Your task to perform on an android device: Show the shopping cart on costco. Add "panasonic triple a" to the cart on costco, then select checkout. Image 0: 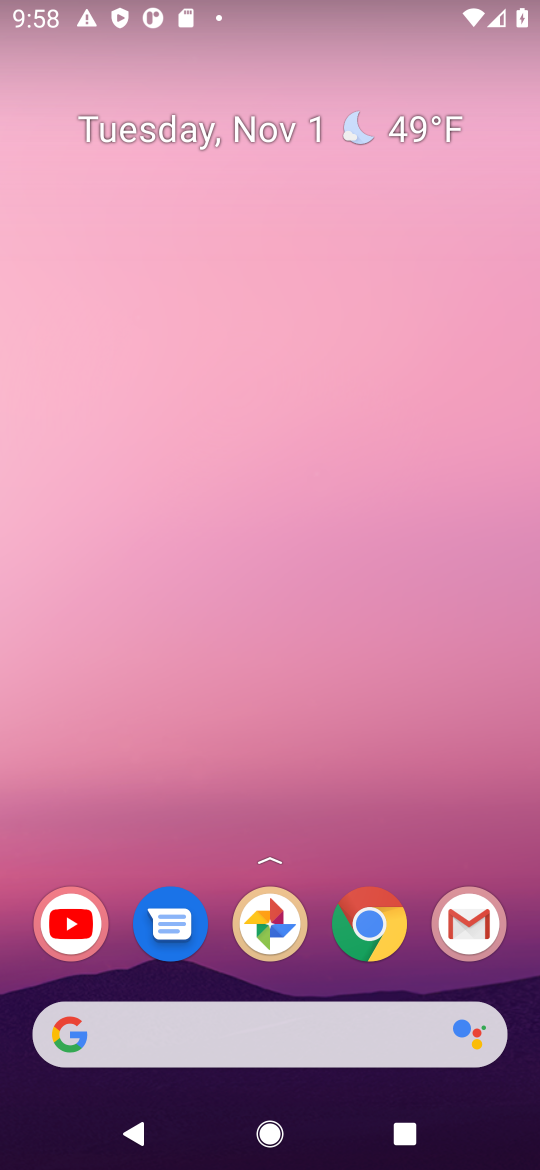
Step 0: click (398, 923)
Your task to perform on an android device: Show the shopping cart on costco. Add "panasonic triple a" to the cart on costco, then select checkout. Image 1: 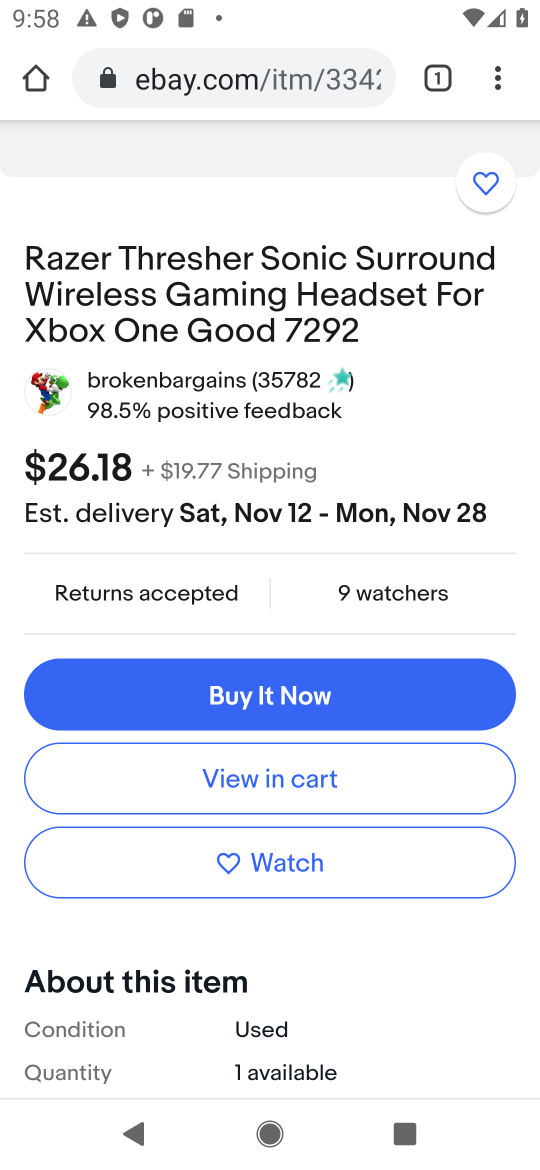
Step 1: click (178, 85)
Your task to perform on an android device: Show the shopping cart on costco. Add "panasonic triple a" to the cart on costco, then select checkout. Image 2: 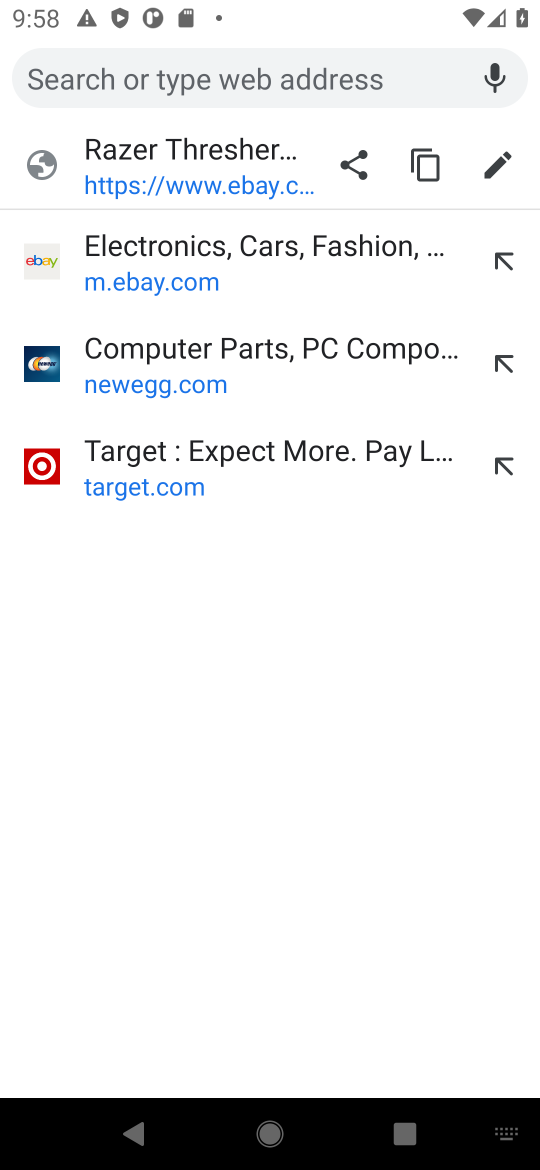
Step 2: type "costco"
Your task to perform on an android device: Show the shopping cart on costco. Add "panasonic triple a" to the cart on costco, then select checkout. Image 3: 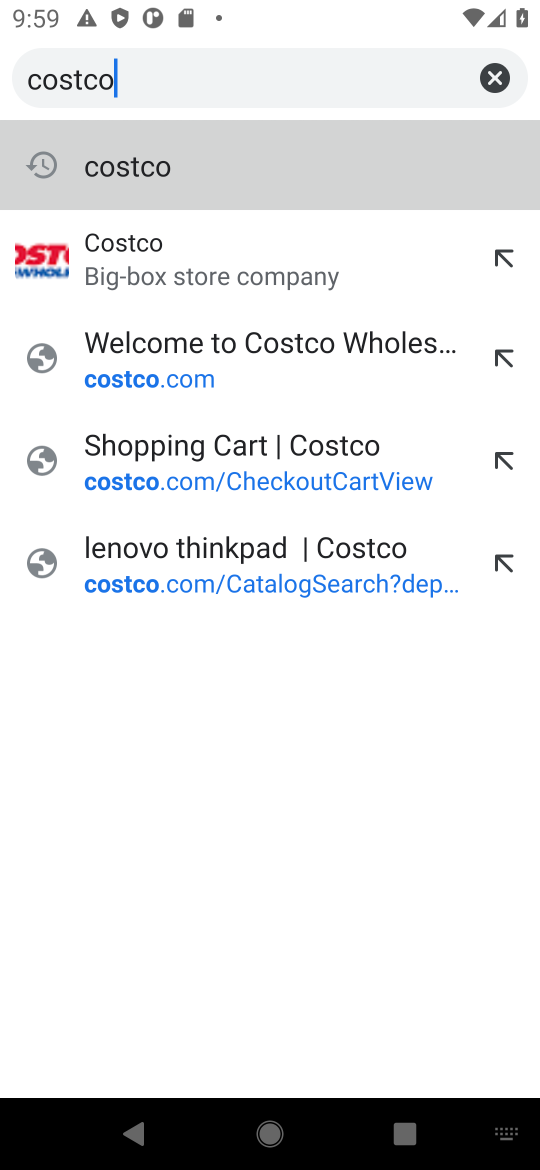
Step 3: click (139, 169)
Your task to perform on an android device: Show the shopping cart on costco. Add "panasonic triple a" to the cart on costco, then select checkout. Image 4: 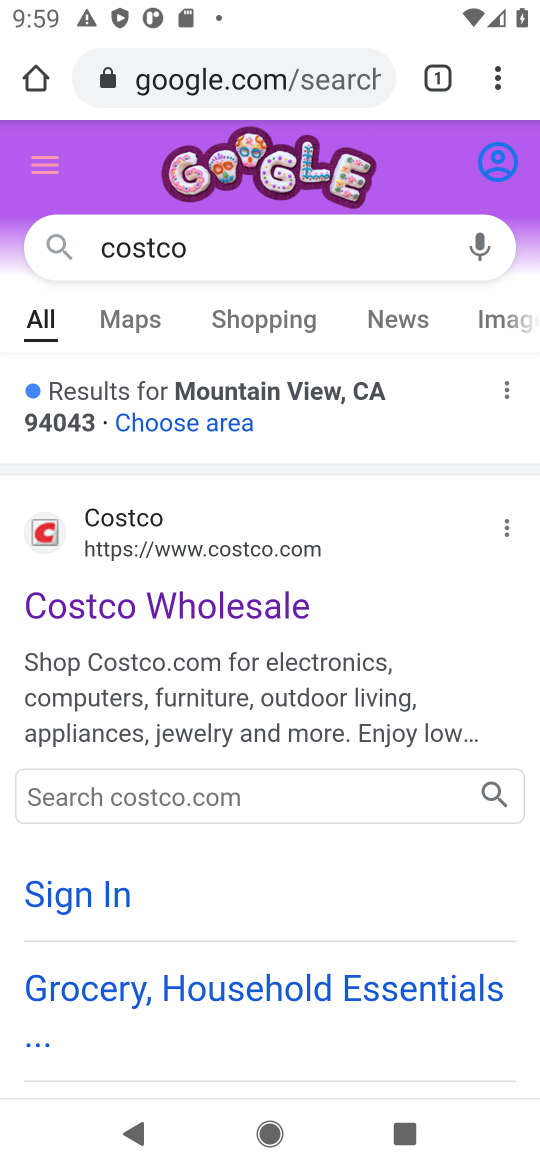
Step 4: click (98, 599)
Your task to perform on an android device: Show the shopping cart on costco. Add "panasonic triple a" to the cart on costco, then select checkout. Image 5: 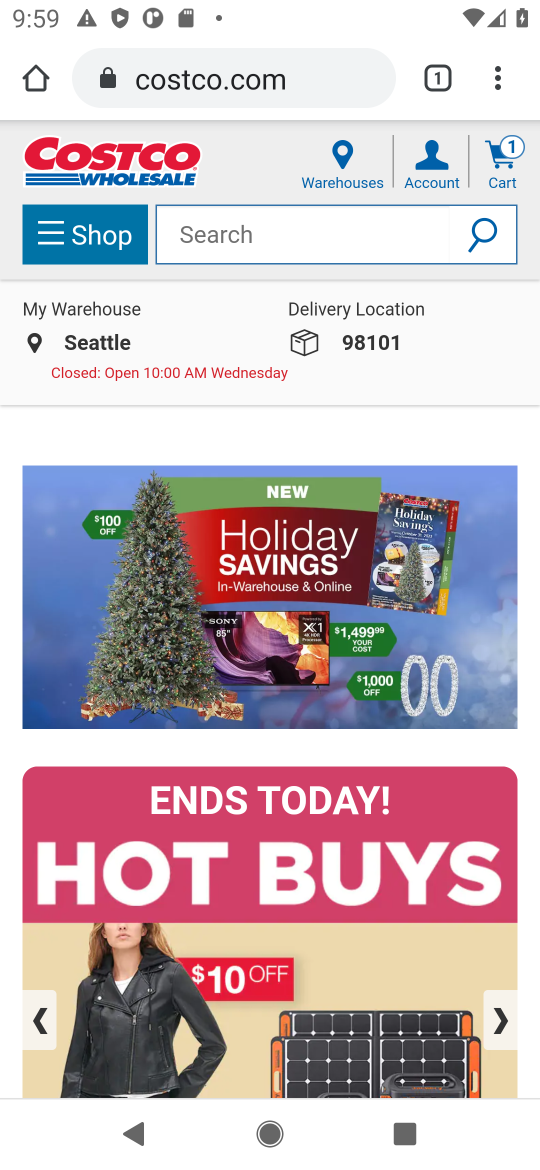
Step 5: click (503, 160)
Your task to perform on an android device: Show the shopping cart on costco. Add "panasonic triple a" to the cart on costco, then select checkout. Image 6: 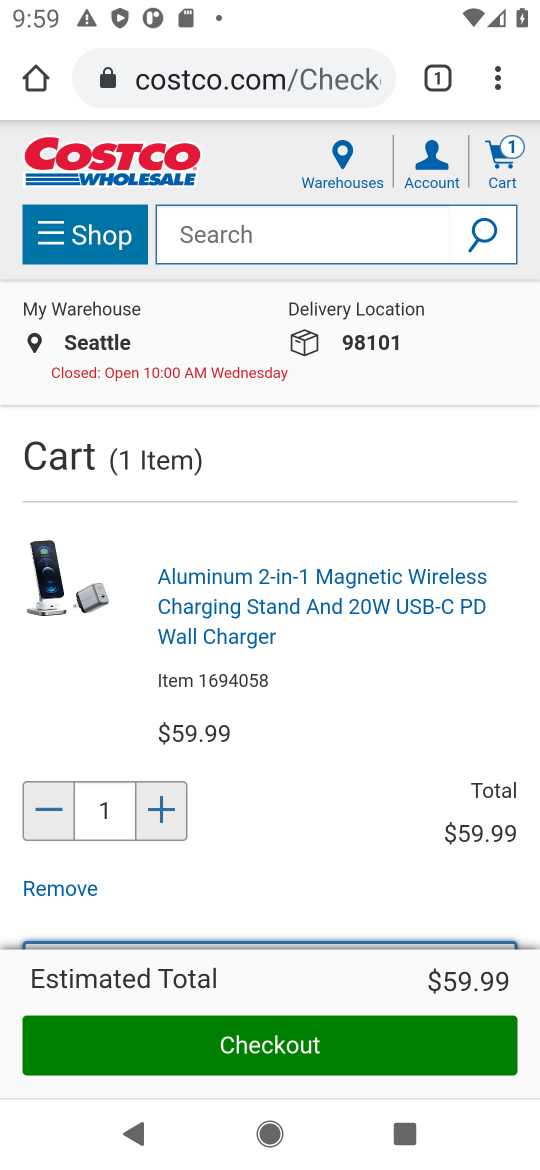
Step 6: click (195, 230)
Your task to perform on an android device: Show the shopping cart on costco. Add "panasonic triple a" to the cart on costco, then select checkout. Image 7: 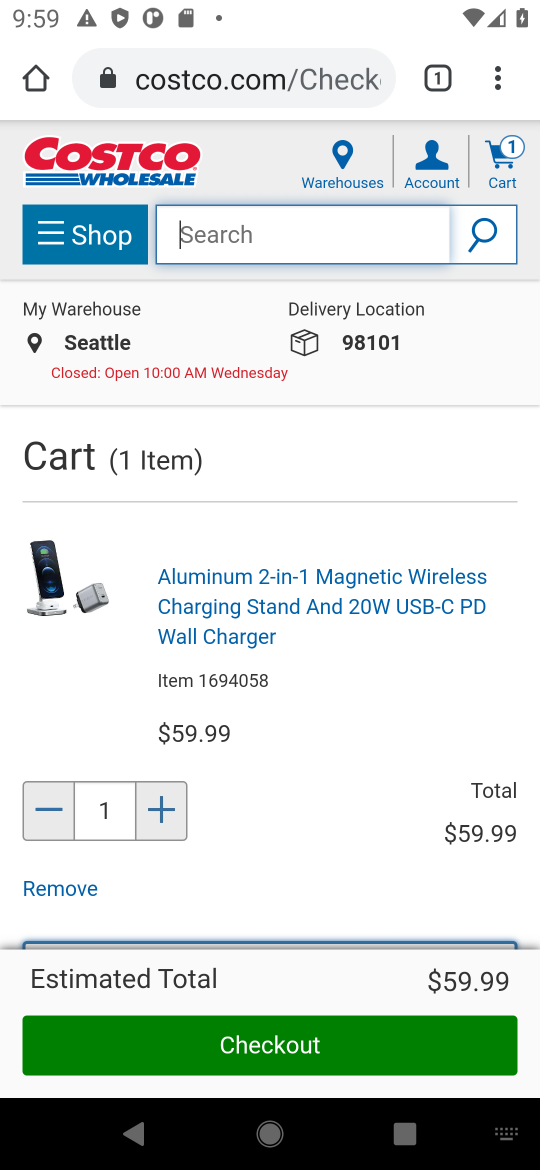
Step 7: type "panasonic triple a"
Your task to perform on an android device: Show the shopping cart on costco. Add "panasonic triple a" to the cart on costco, then select checkout. Image 8: 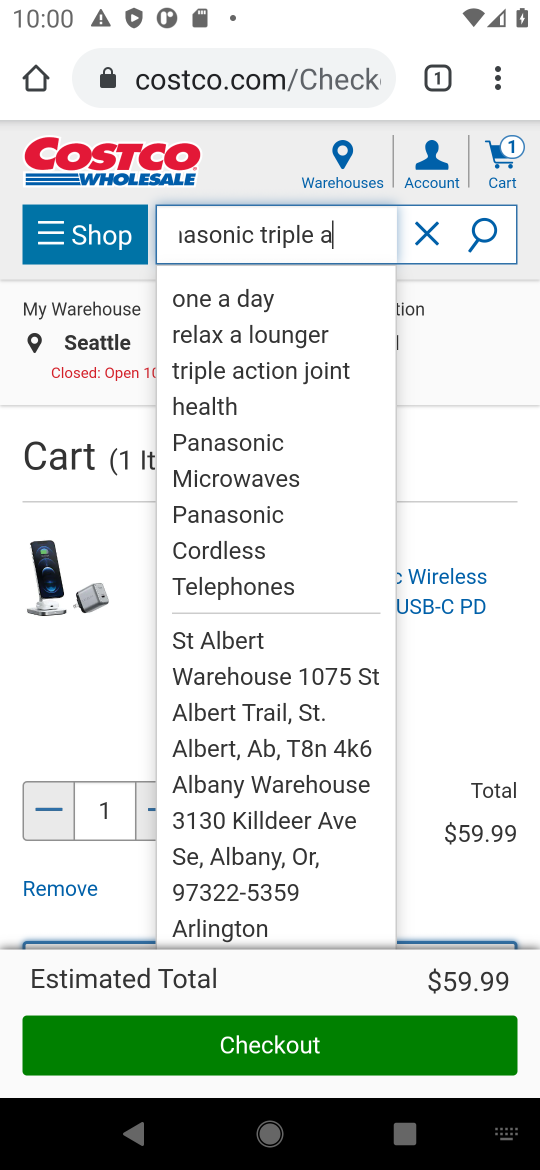
Step 8: click (486, 240)
Your task to perform on an android device: Show the shopping cart on costco. Add "panasonic triple a" to the cart on costco, then select checkout. Image 9: 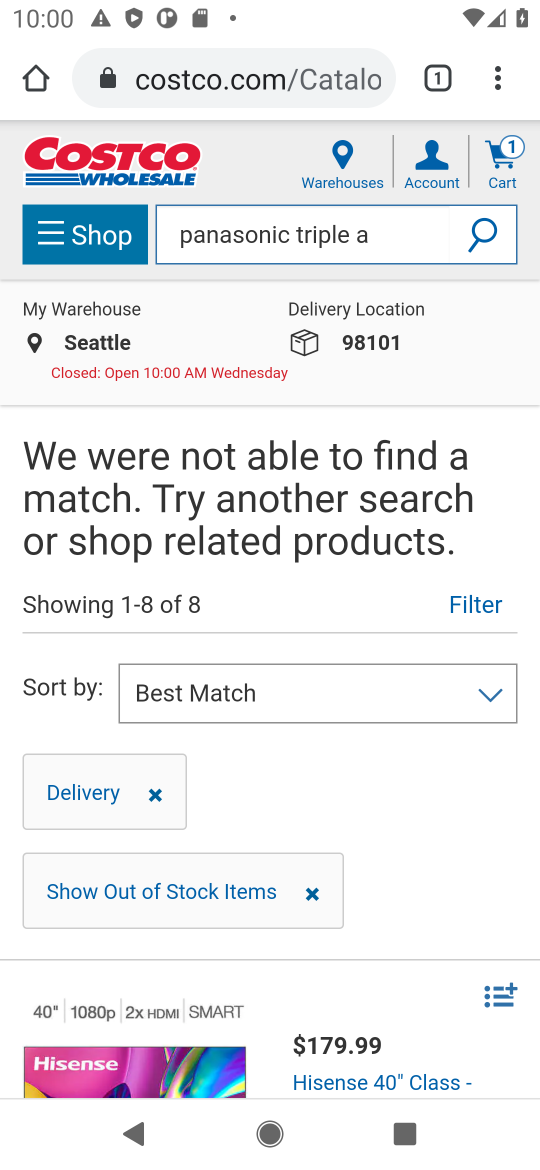
Step 9: task complete